Your task to perform on an android device: Open display settings Image 0: 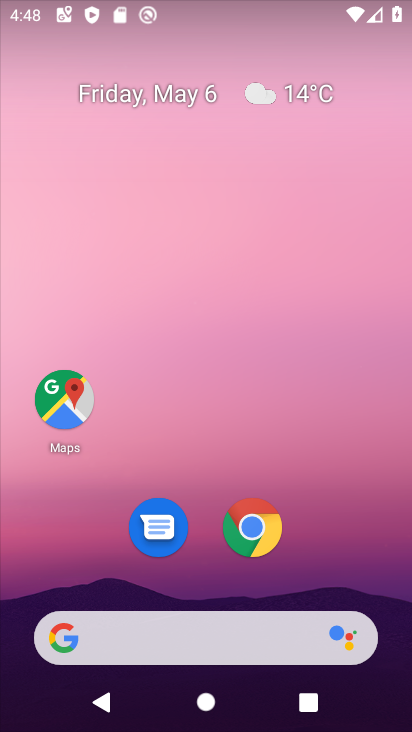
Step 0: drag from (330, 562) to (314, 125)
Your task to perform on an android device: Open display settings Image 1: 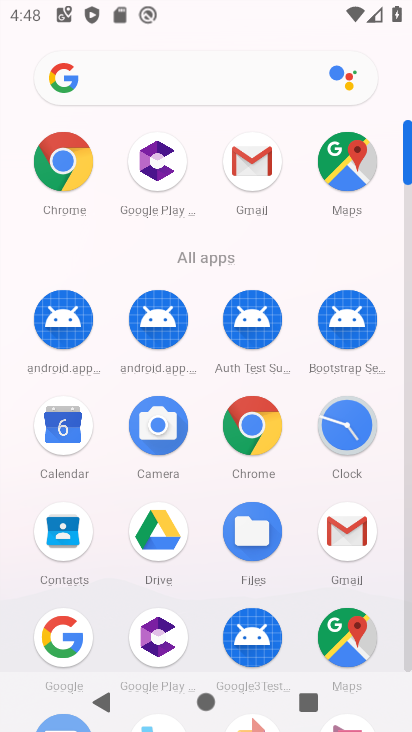
Step 1: drag from (402, 535) to (362, 237)
Your task to perform on an android device: Open display settings Image 2: 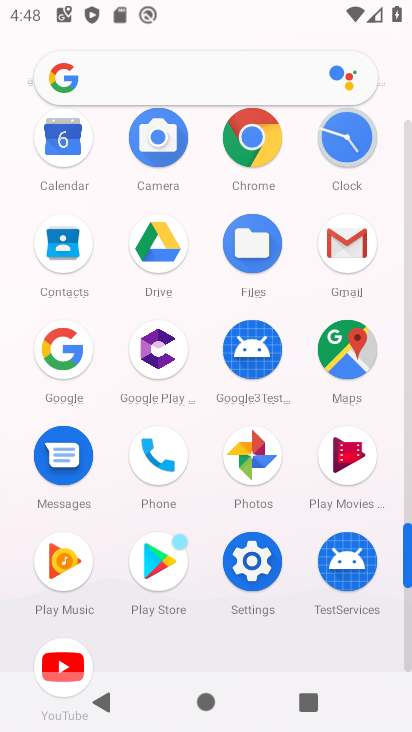
Step 2: click (249, 556)
Your task to perform on an android device: Open display settings Image 3: 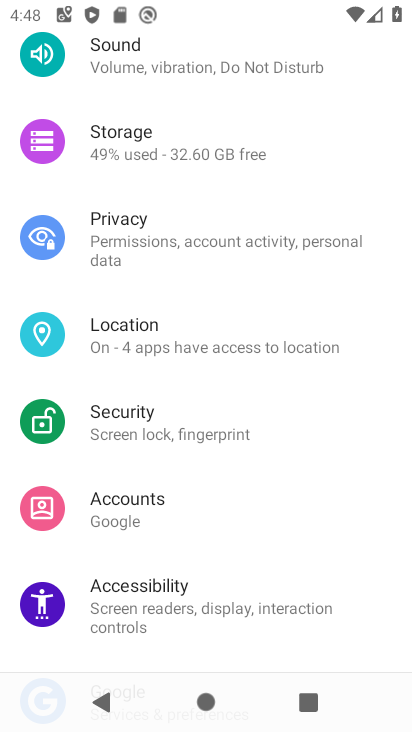
Step 3: drag from (190, 189) to (162, 532)
Your task to perform on an android device: Open display settings Image 4: 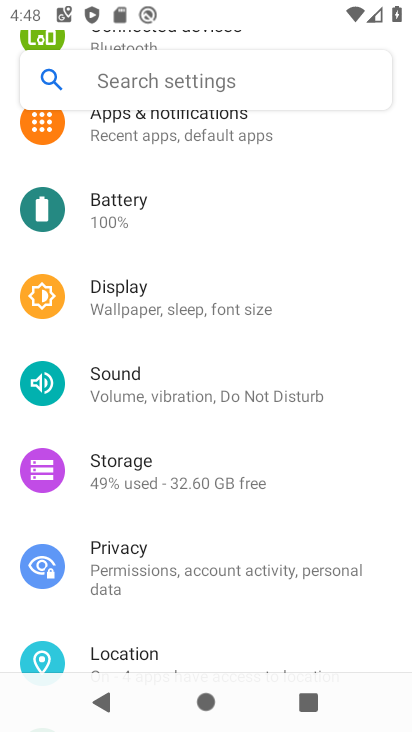
Step 4: drag from (165, 241) to (164, 551)
Your task to perform on an android device: Open display settings Image 5: 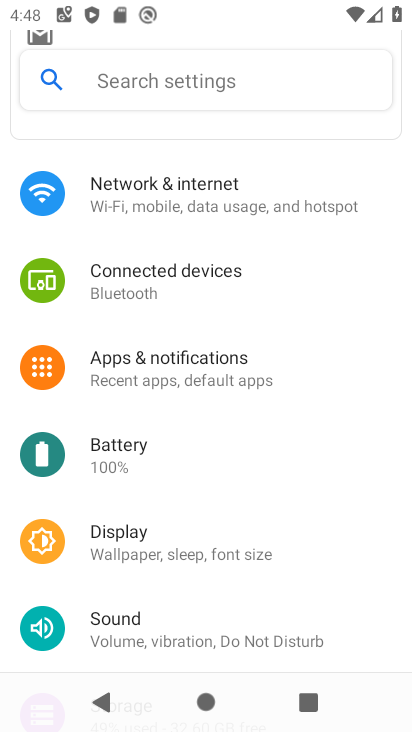
Step 5: drag from (188, 587) to (231, 248)
Your task to perform on an android device: Open display settings Image 6: 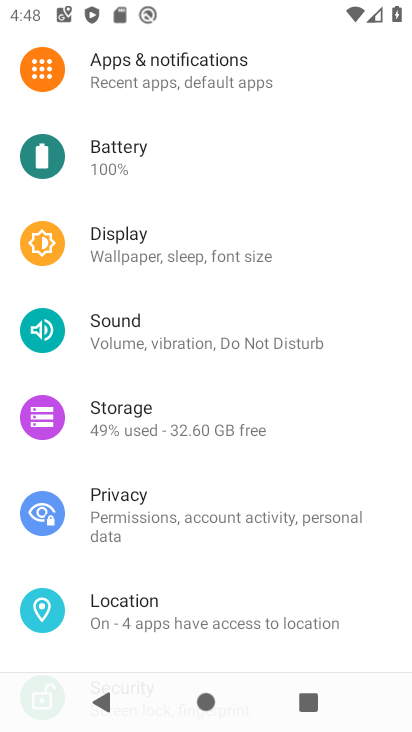
Step 6: drag from (210, 265) to (231, 433)
Your task to perform on an android device: Open display settings Image 7: 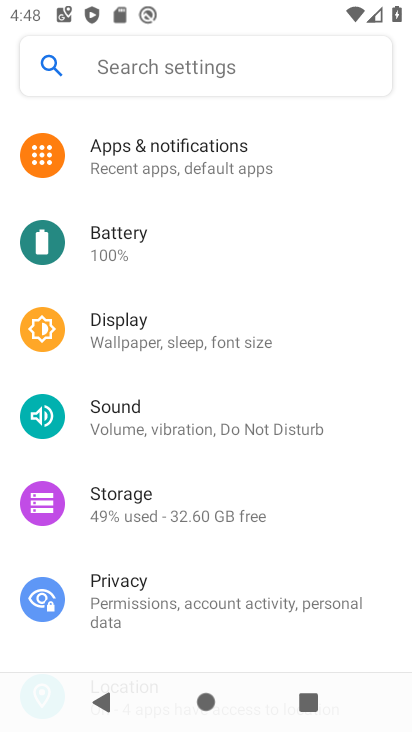
Step 7: click (156, 344)
Your task to perform on an android device: Open display settings Image 8: 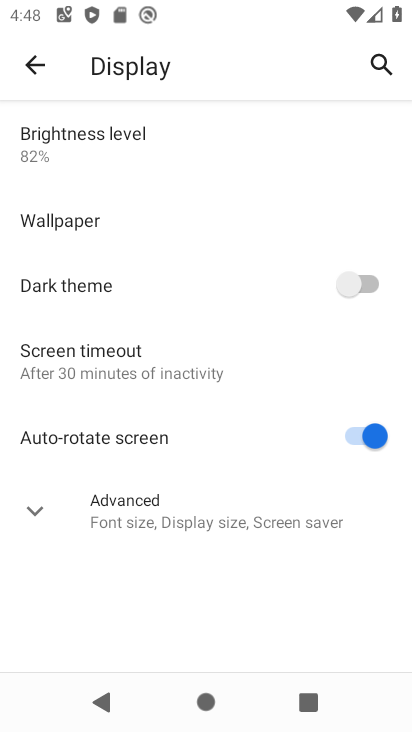
Step 8: task complete